Your task to perform on an android device: open app "Truecaller" Image 0: 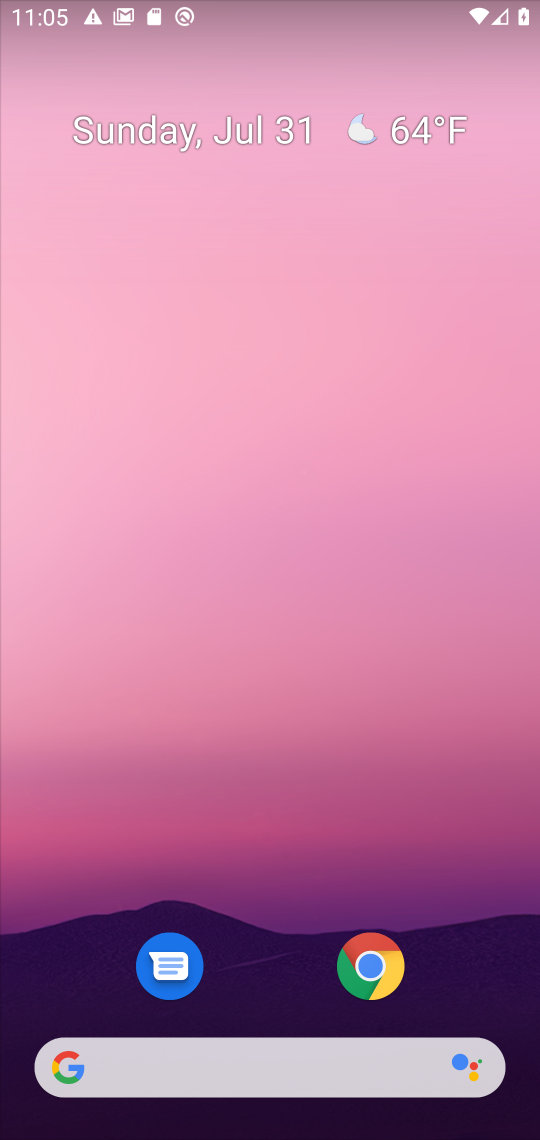
Step 0: drag from (283, 838) to (222, 0)
Your task to perform on an android device: open app "Truecaller" Image 1: 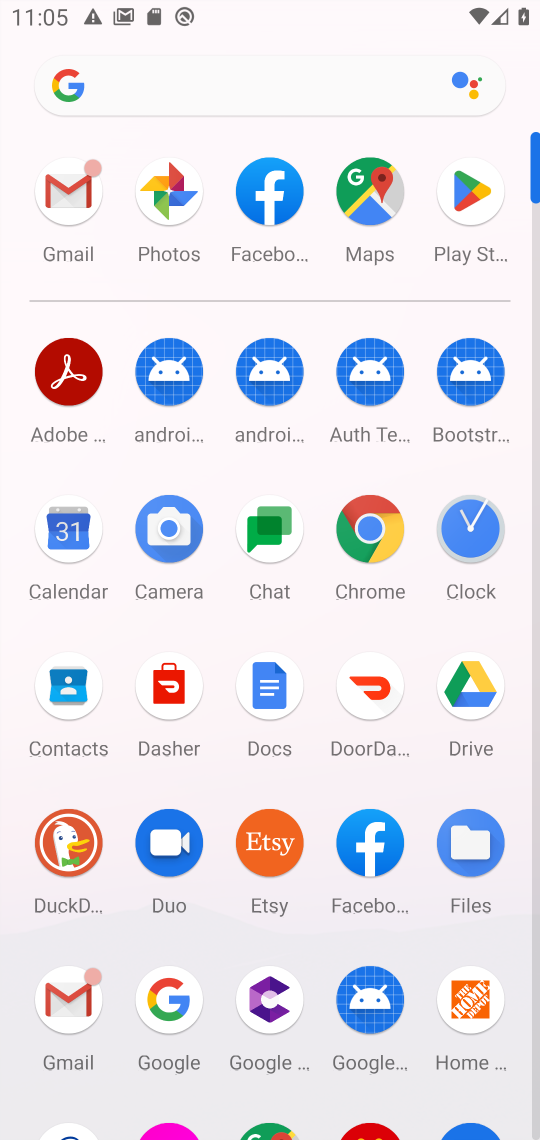
Step 1: click (485, 201)
Your task to perform on an android device: open app "Truecaller" Image 2: 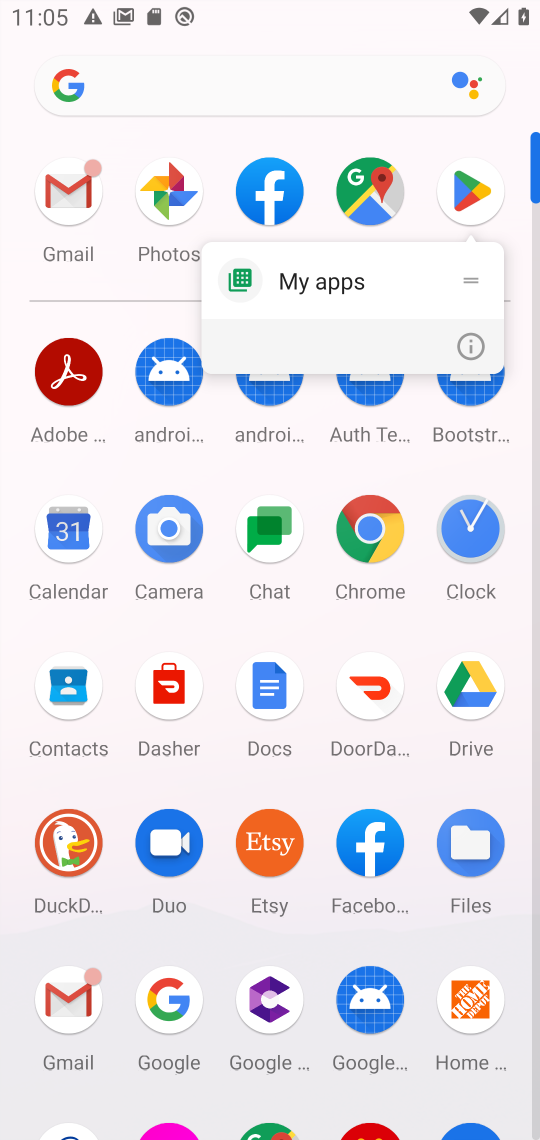
Step 2: click (462, 211)
Your task to perform on an android device: open app "Truecaller" Image 3: 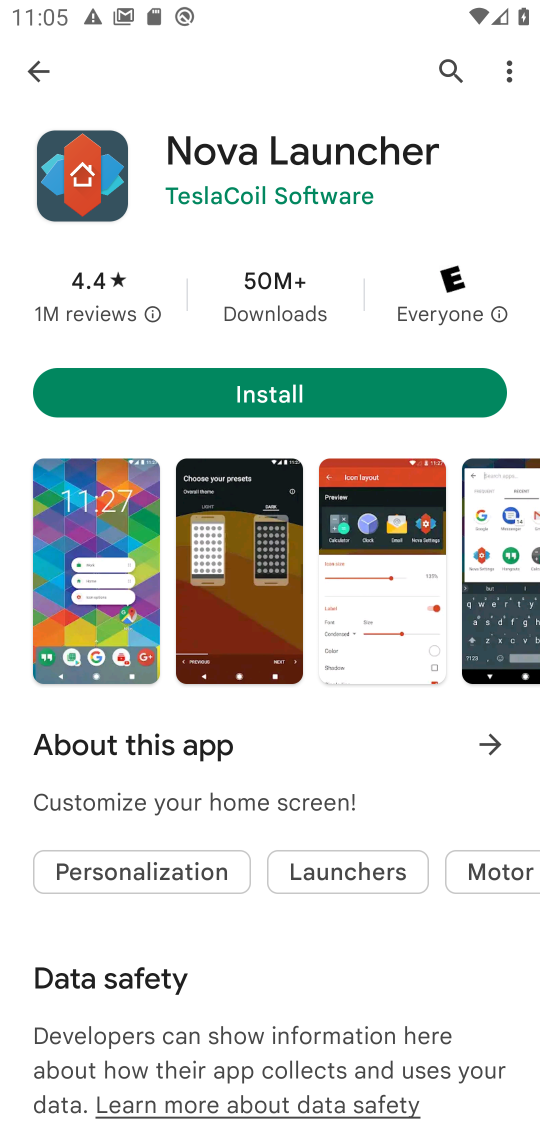
Step 3: click (41, 69)
Your task to perform on an android device: open app "Truecaller" Image 4: 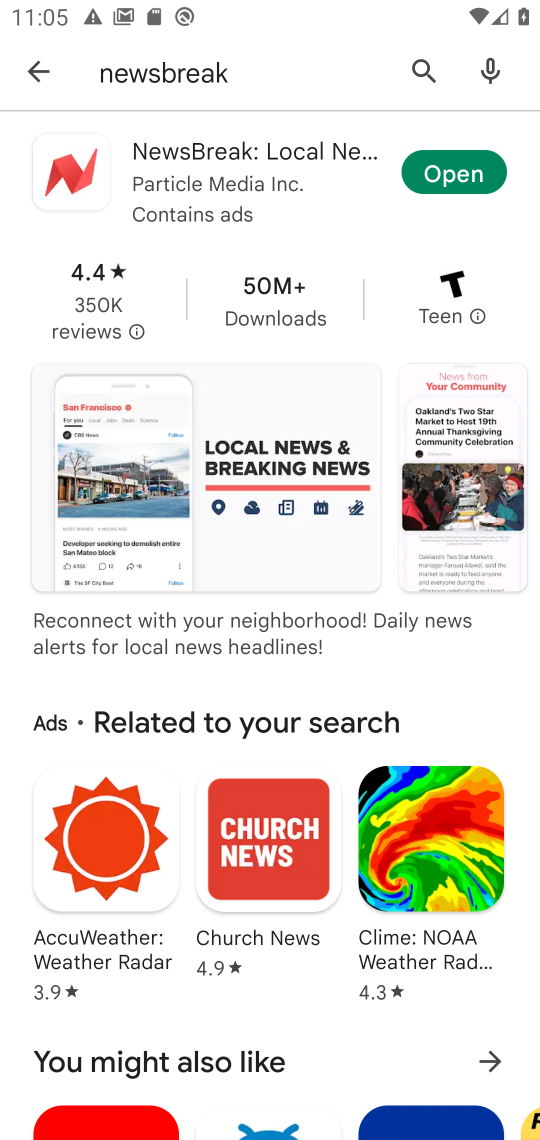
Step 4: click (244, 59)
Your task to perform on an android device: open app "Truecaller" Image 5: 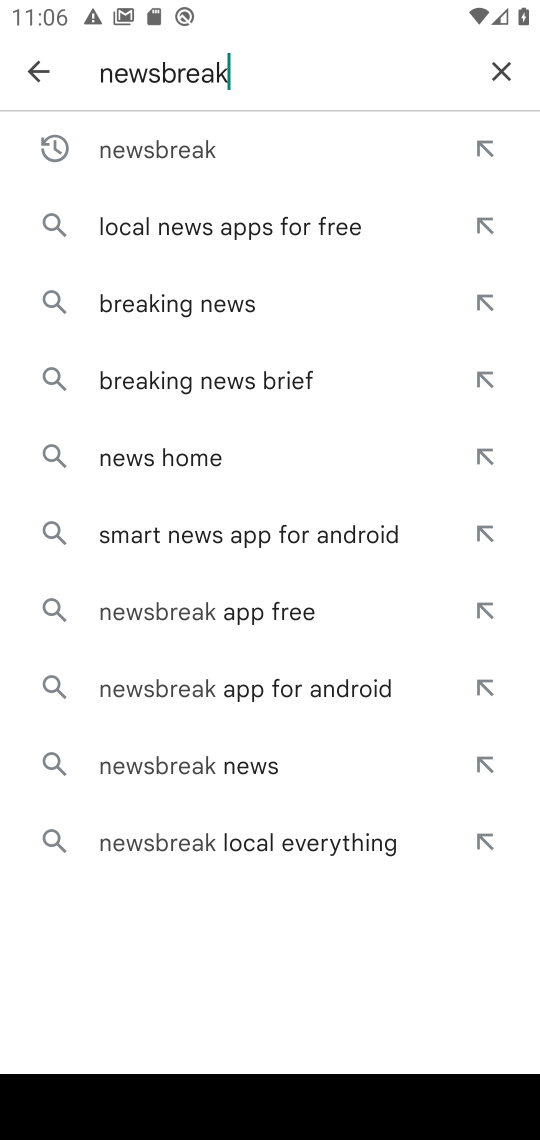
Step 5: click (528, 62)
Your task to perform on an android device: open app "Truecaller" Image 6: 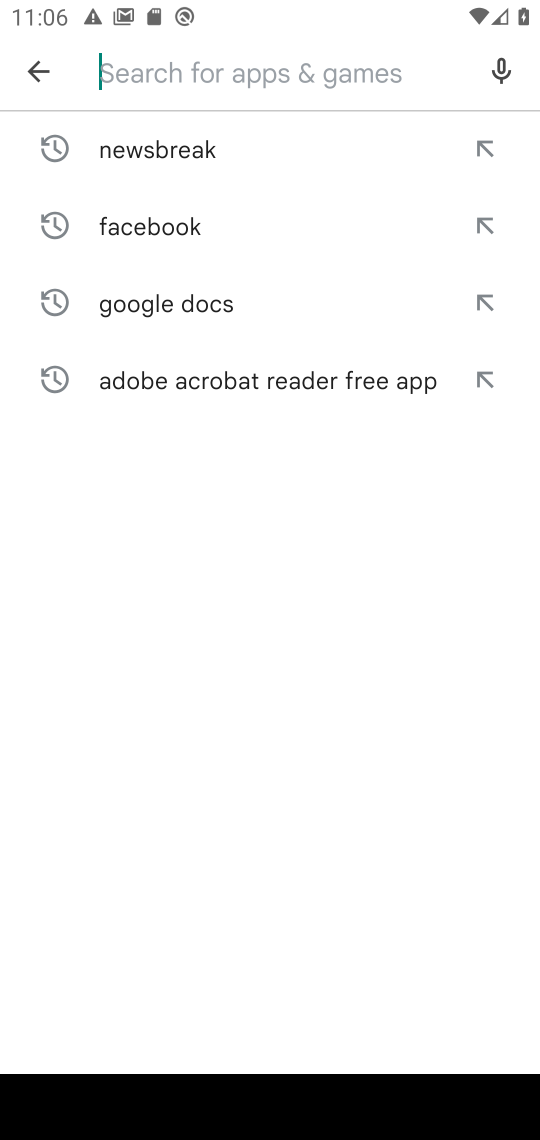
Step 6: type "truecaller"
Your task to perform on an android device: open app "Truecaller" Image 7: 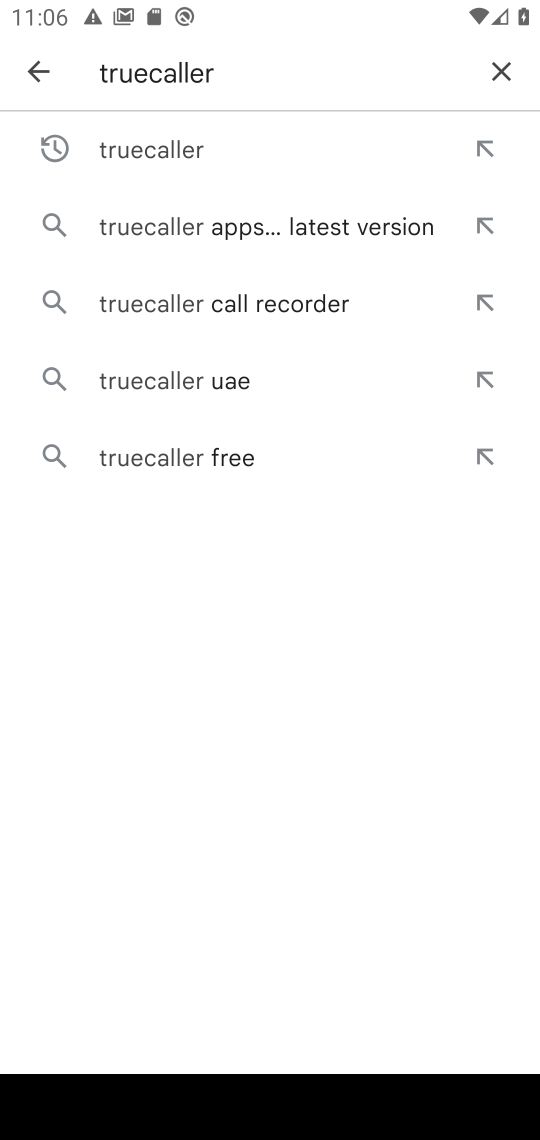
Step 7: click (199, 146)
Your task to perform on an android device: open app "Truecaller" Image 8: 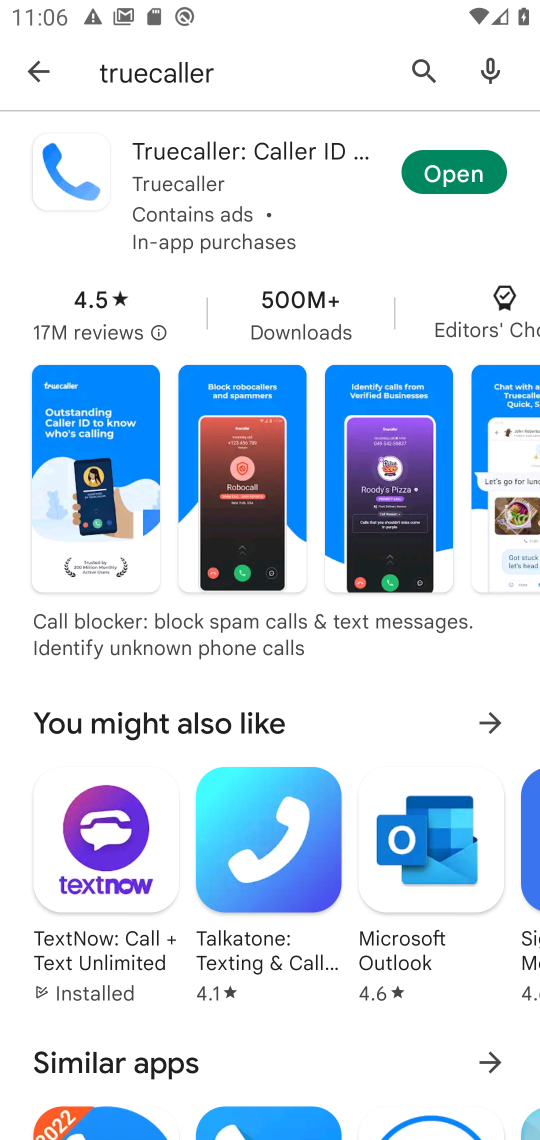
Step 8: click (430, 164)
Your task to perform on an android device: open app "Truecaller" Image 9: 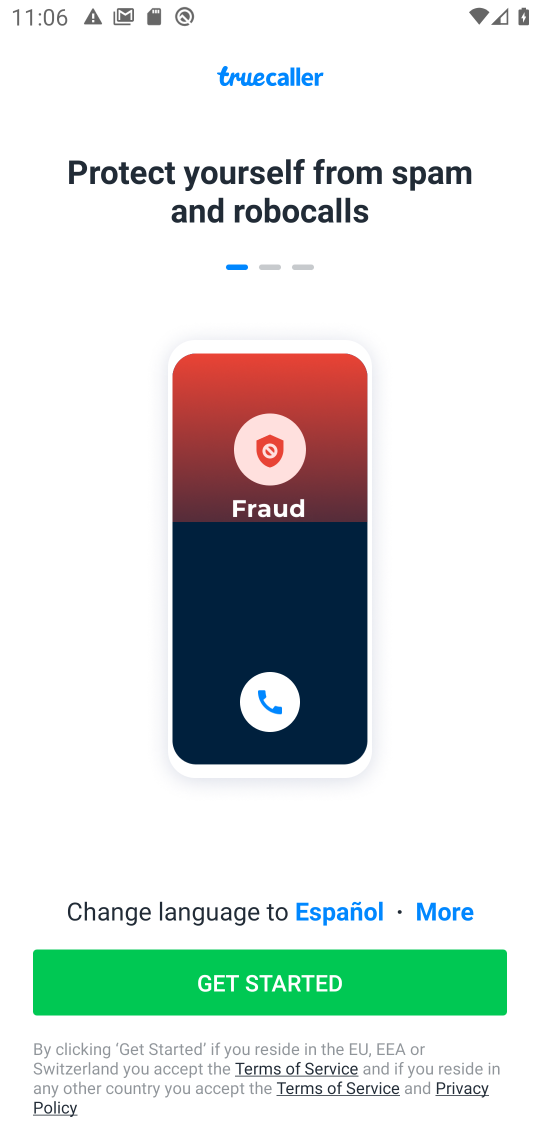
Step 9: click (322, 994)
Your task to perform on an android device: open app "Truecaller" Image 10: 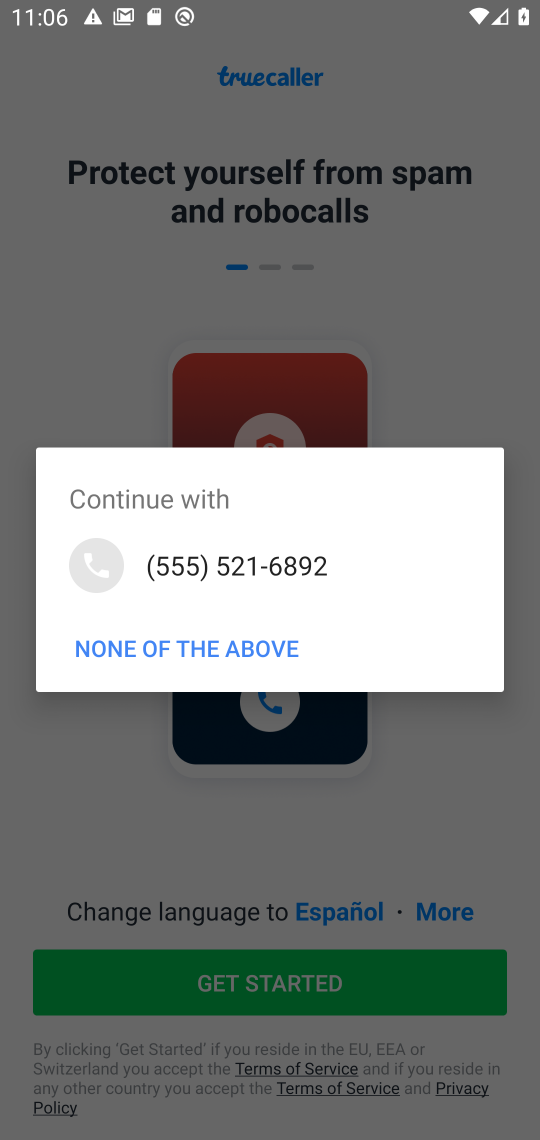
Step 10: click (308, 564)
Your task to perform on an android device: open app "Truecaller" Image 11: 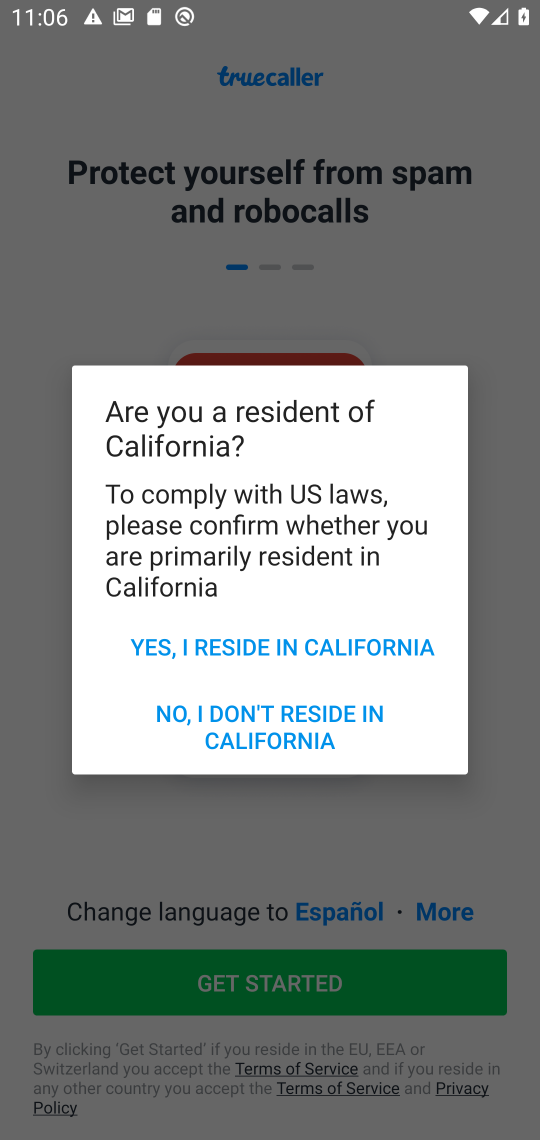
Step 11: click (271, 632)
Your task to perform on an android device: open app "Truecaller" Image 12: 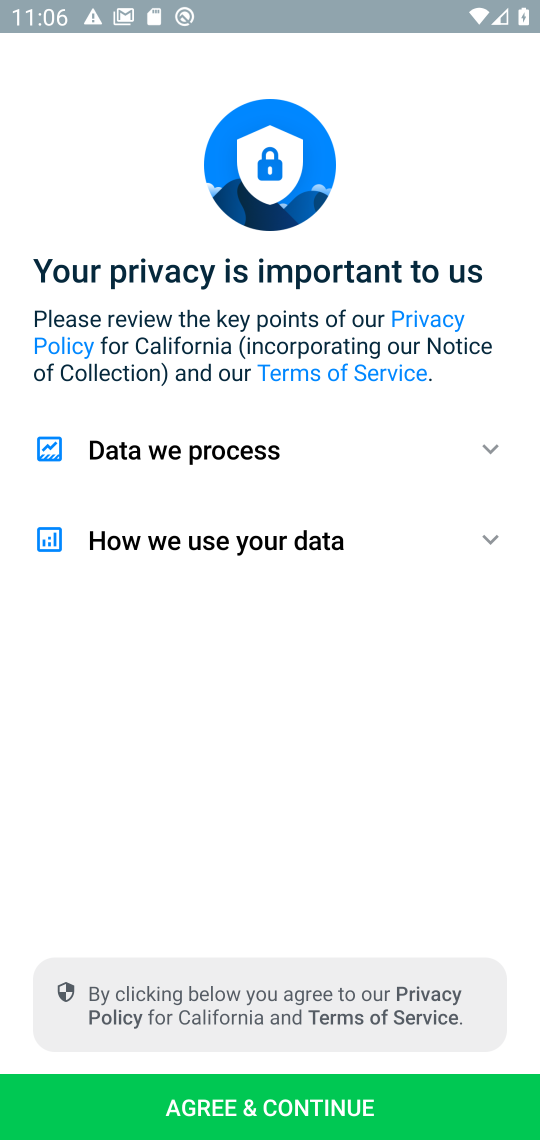
Step 12: click (368, 1112)
Your task to perform on an android device: open app "Truecaller" Image 13: 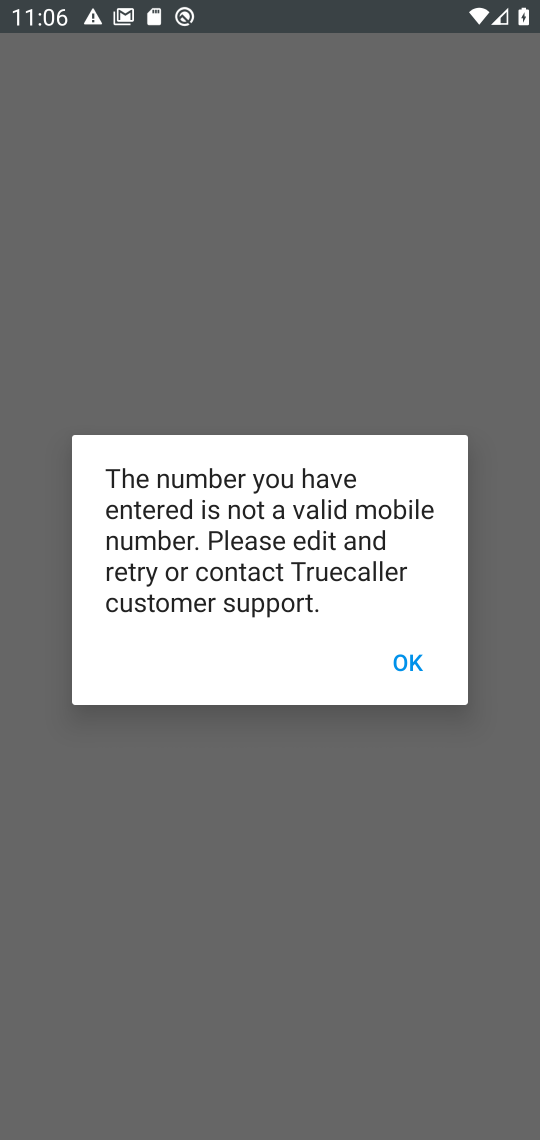
Step 13: click (404, 660)
Your task to perform on an android device: open app "Truecaller" Image 14: 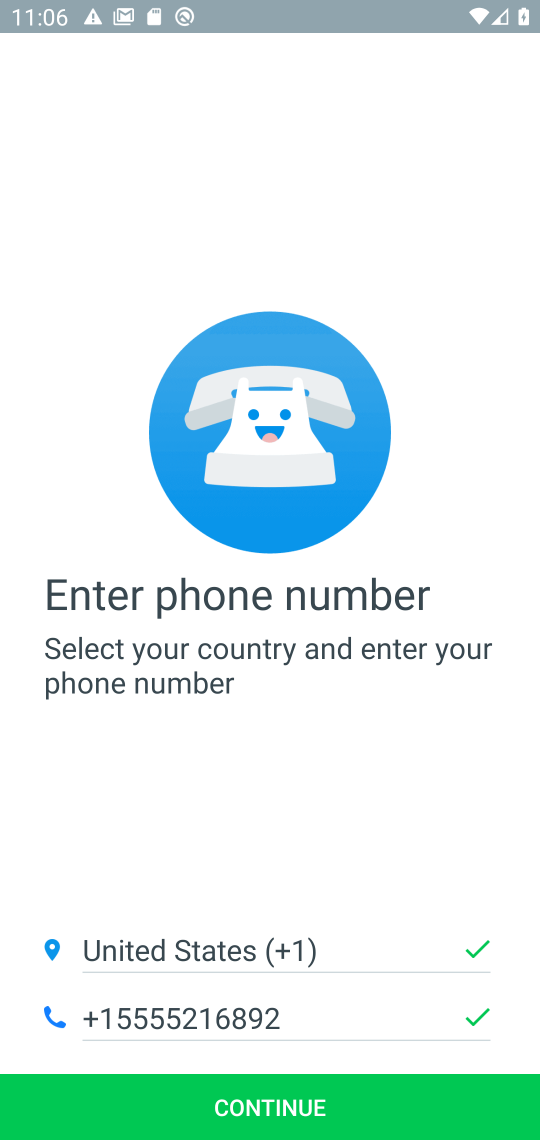
Step 14: click (366, 1117)
Your task to perform on an android device: open app "Truecaller" Image 15: 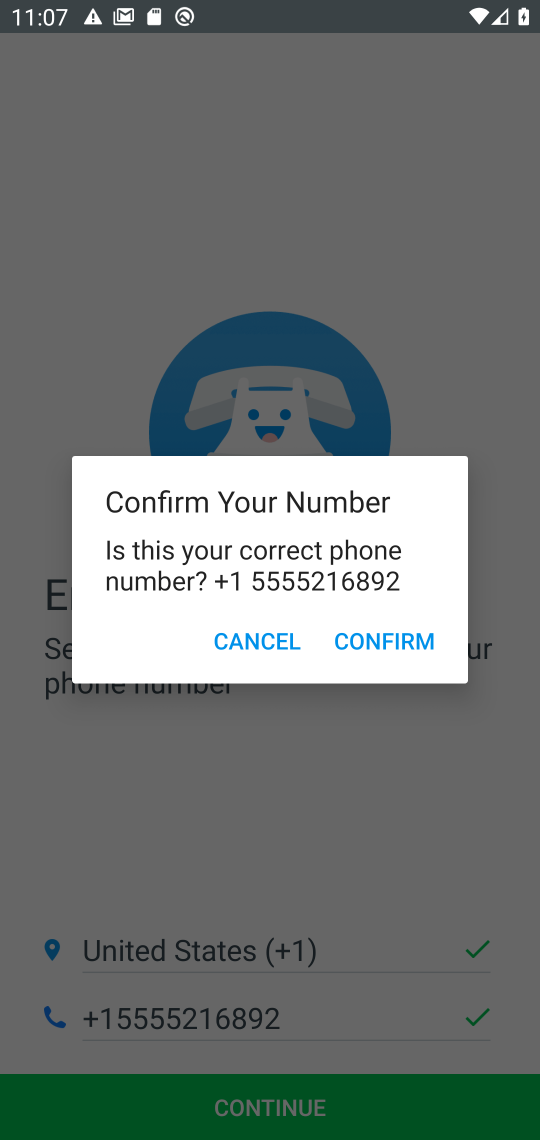
Step 15: click (407, 618)
Your task to perform on an android device: open app "Truecaller" Image 16: 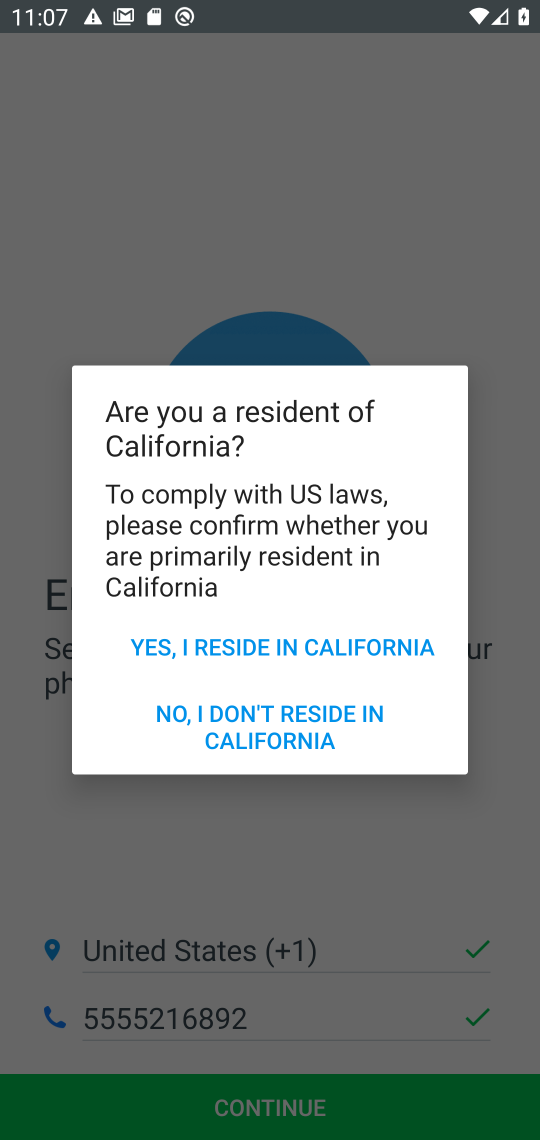
Step 16: task complete